Your task to perform on an android device: turn notification dots off Image 0: 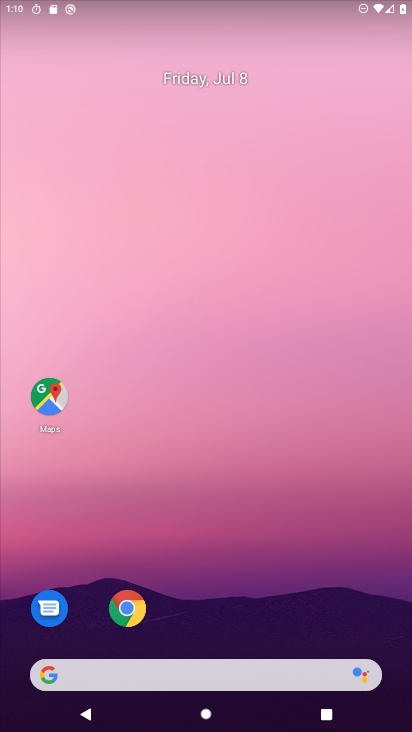
Step 0: drag from (237, 701) to (227, 54)
Your task to perform on an android device: turn notification dots off Image 1: 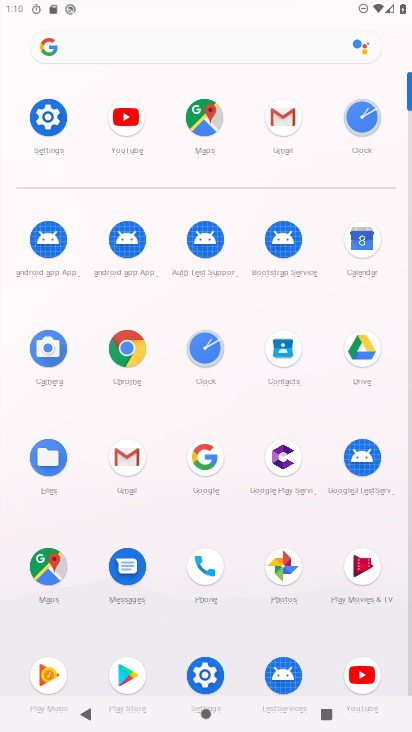
Step 1: click (48, 115)
Your task to perform on an android device: turn notification dots off Image 2: 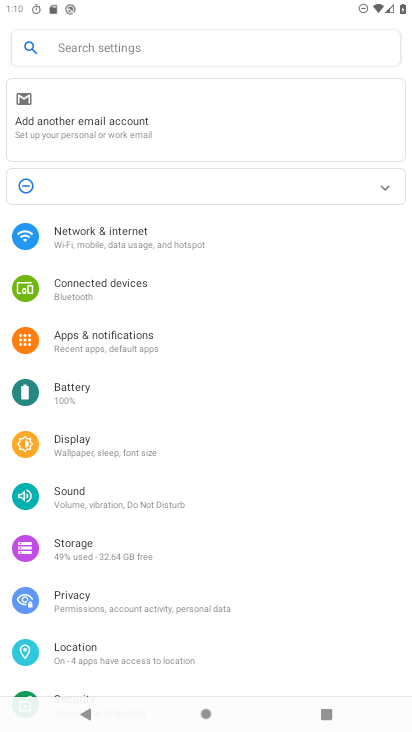
Step 2: click (84, 339)
Your task to perform on an android device: turn notification dots off Image 3: 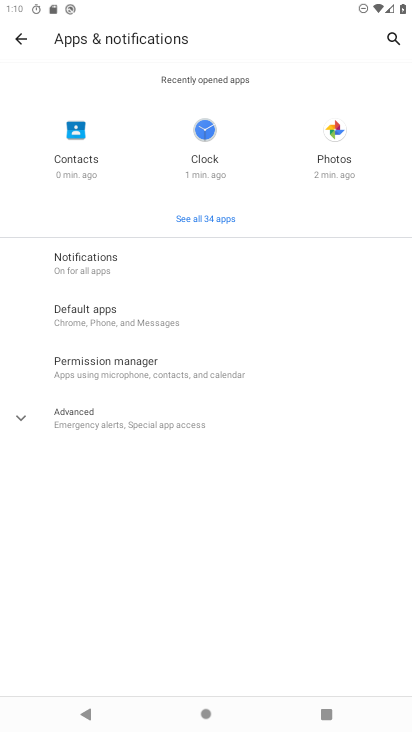
Step 3: click (84, 263)
Your task to perform on an android device: turn notification dots off Image 4: 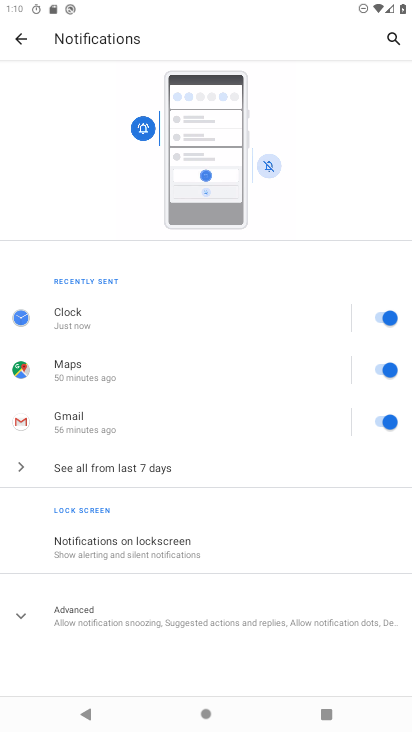
Step 4: click (151, 620)
Your task to perform on an android device: turn notification dots off Image 5: 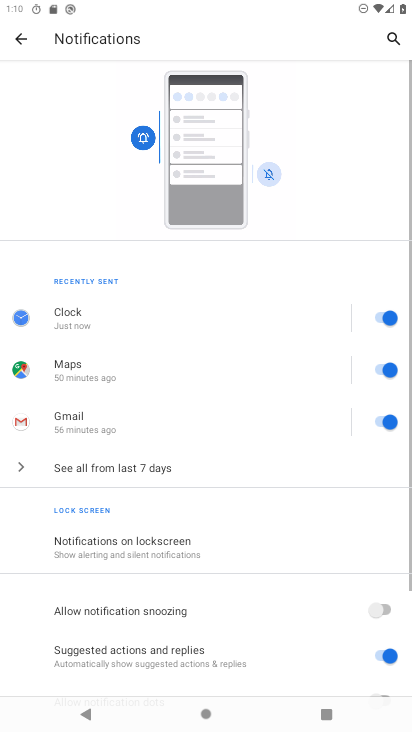
Step 5: task complete